Your task to perform on an android device: Search for Mexican restaurants on Maps Image 0: 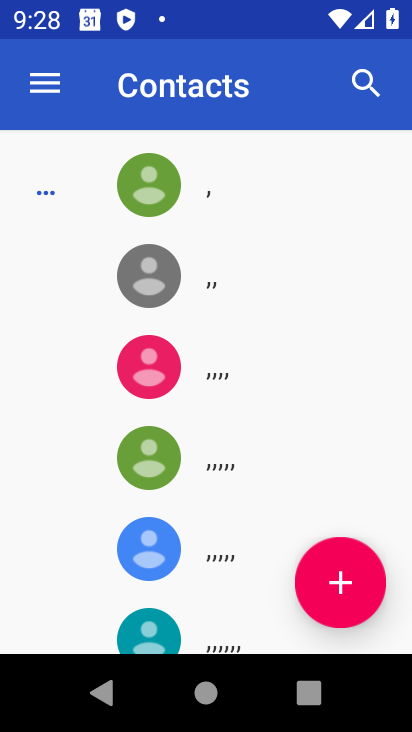
Step 0: press home button
Your task to perform on an android device: Search for Mexican restaurants on Maps Image 1: 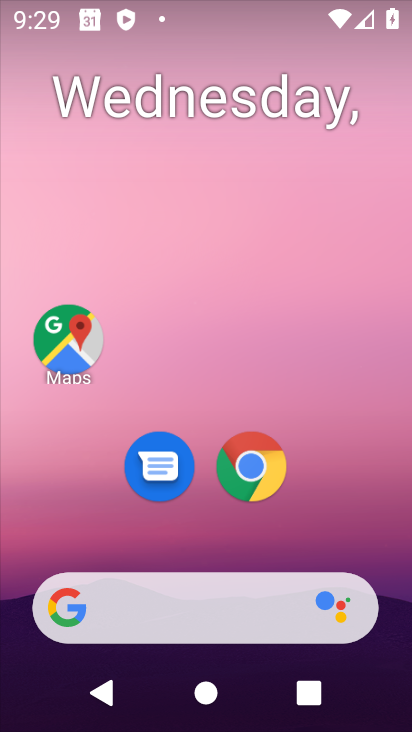
Step 1: click (70, 333)
Your task to perform on an android device: Search for Mexican restaurants on Maps Image 2: 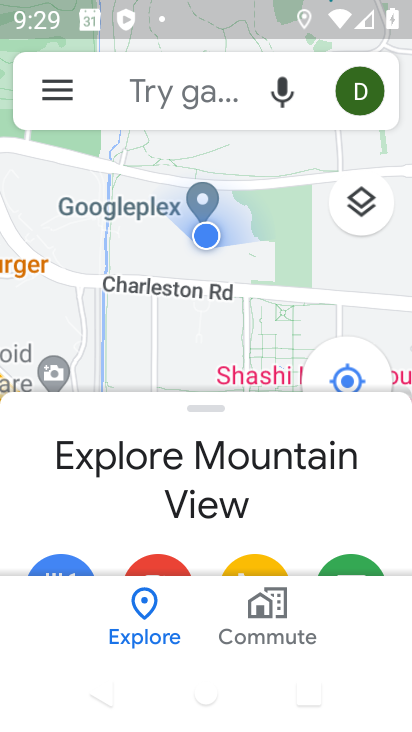
Step 2: click (204, 86)
Your task to perform on an android device: Search for Mexican restaurants on Maps Image 3: 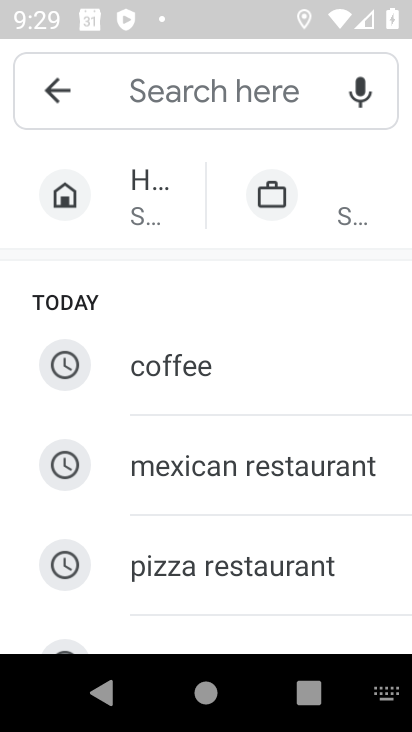
Step 3: click (238, 450)
Your task to perform on an android device: Search for Mexican restaurants on Maps Image 4: 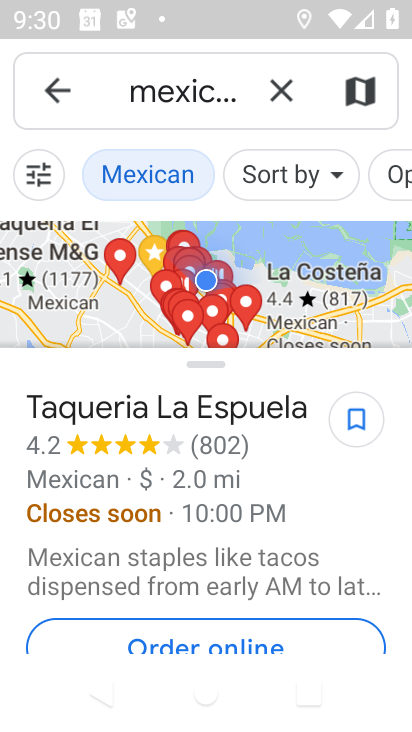
Step 4: task complete